Your task to perform on an android device: toggle location history Image 0: 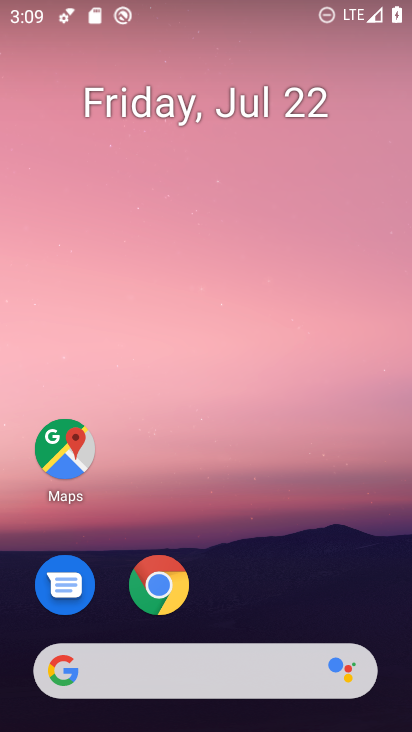
Step 0: drag from (238, 598) to (276, 33)
Your task to perform on an android device: toggle location history Image 1: 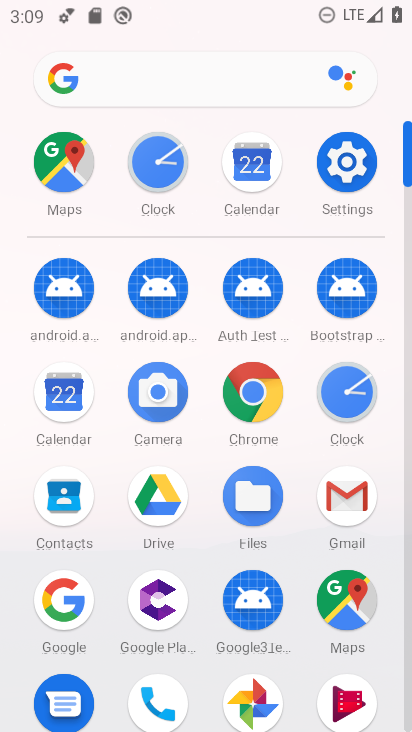
Step 1: click (349, 159)
Your task to perform on an android device: toggle location history Image 2: 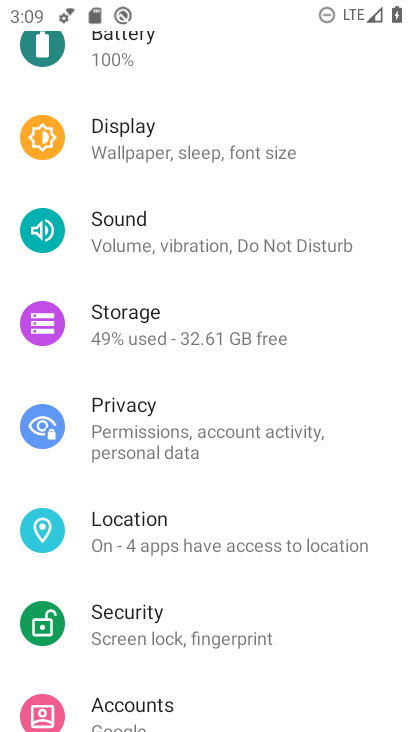
Step 2: click (235, 538)
Your task to perform on an android device: toggle location history Image 3: 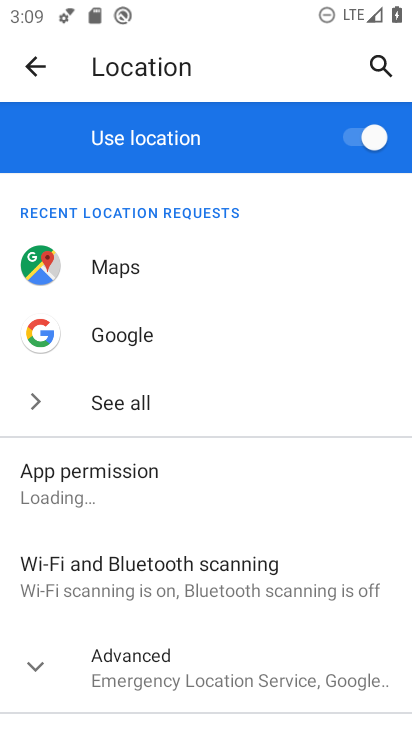
Step 3: drag from (235, 535) to (261, 170)
Your task to perform on an android device: toggle location history Image 4: 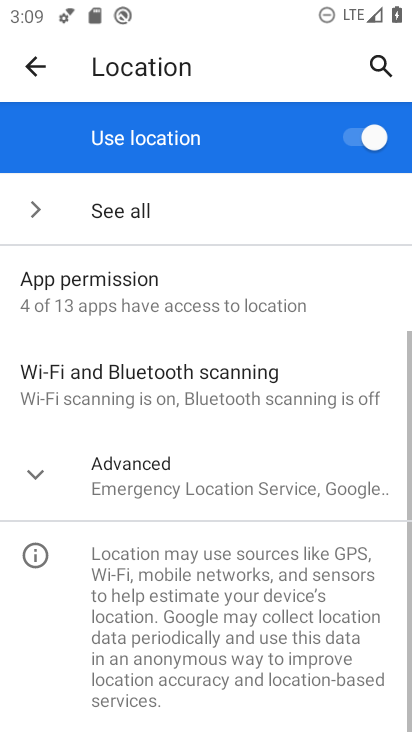
Step 4: click (38, 478)
Your task to perform on an android device: toggle location history Image 5: 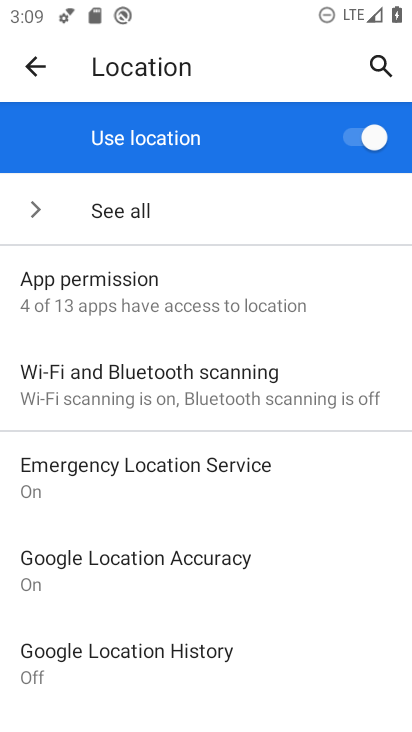
Step 5: click (189, 660)
Your task to perform on an android device: toggle location history Image 6: 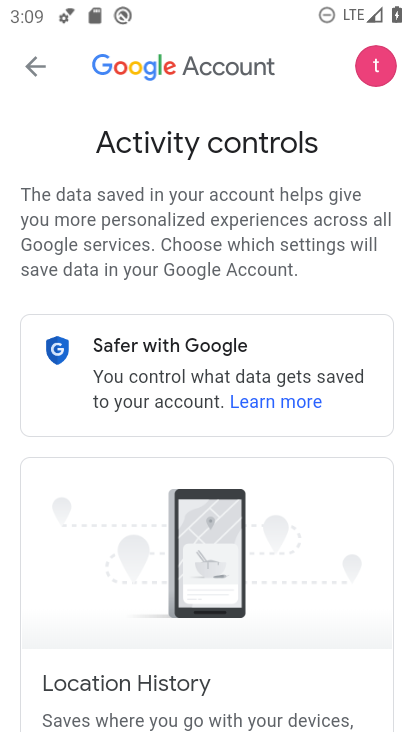
Step 6: drag from (283, 557) to (288, 42)
Your task to perform on an android device: toggle location history Image 7: 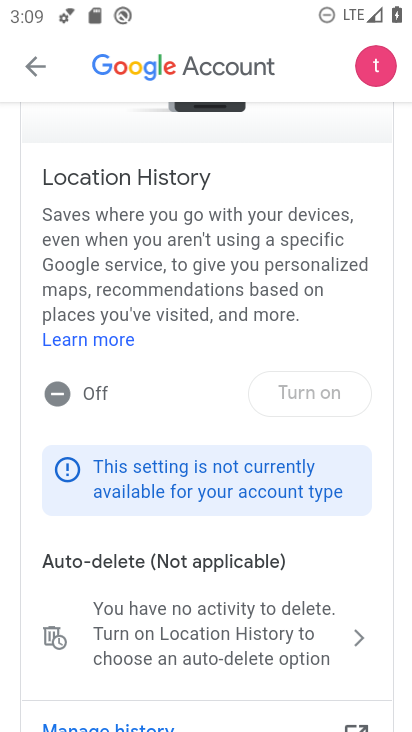
Step 7: click (312, 393)
Your task to perform on an android device: toggle location history Image 8: 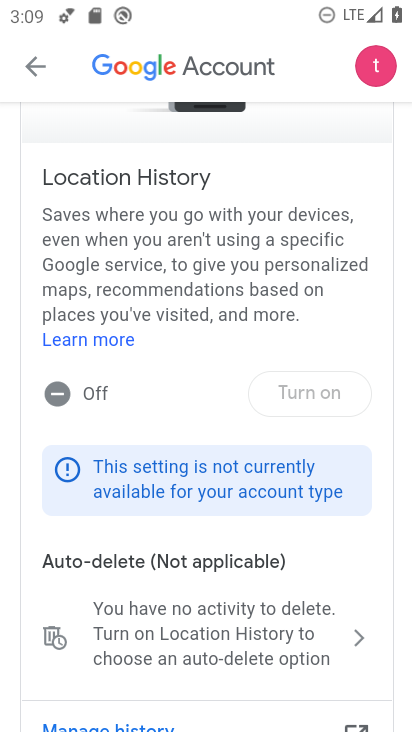
Step 8: click (309, 478)
Your task to perform on an android device: toggle location history Image 9: 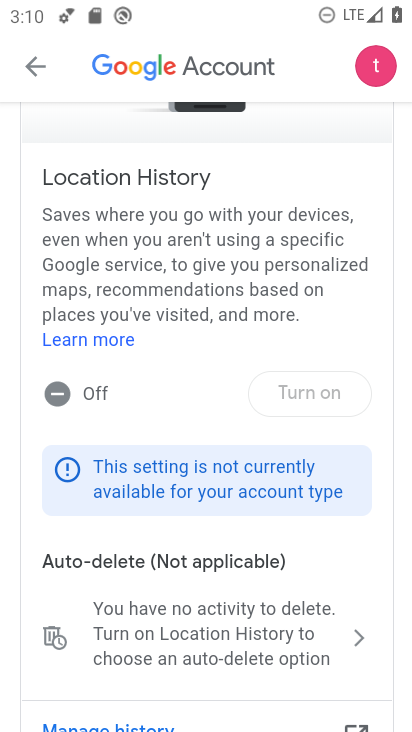
Step 9: click (317, 387)
Your task to perform on an android device: toggle location history Image 10: 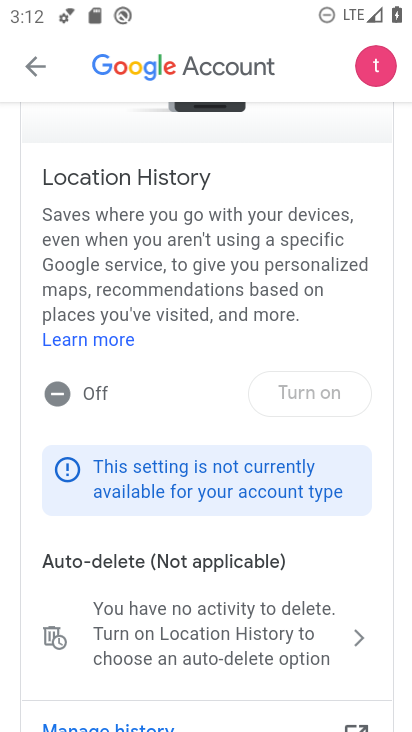
Step 10: task complete